Your task to perform on an android device: When is my next meeting? Image 0: 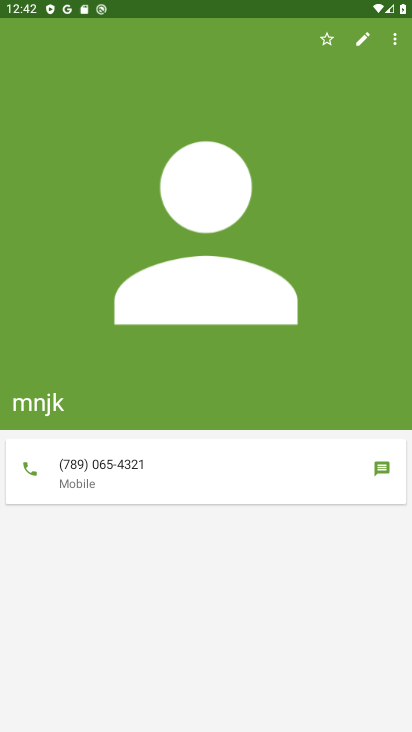
Step 0: press home button
Your task to perform on an android device: When is my next meeting? Image 1: 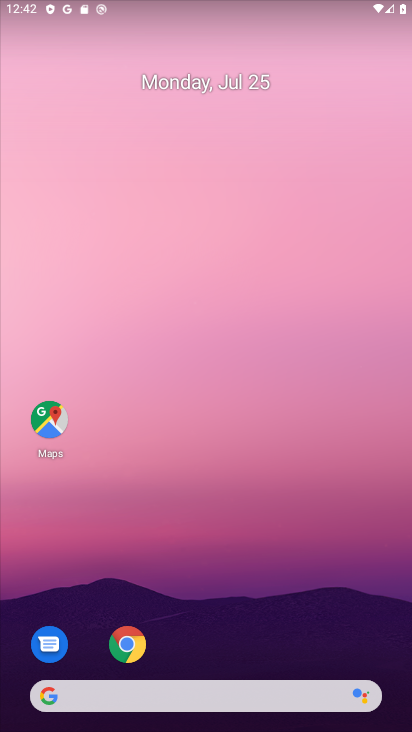
Step 1: drag from (242, 626) to (202, 43)
Your task to perform on an android device: When is my next meeting? Image 2: 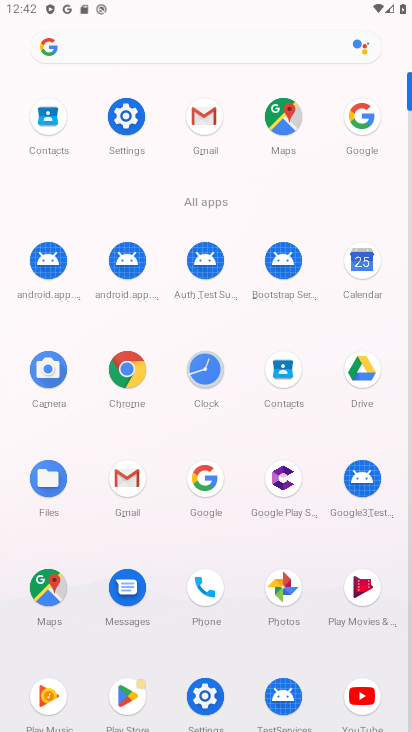
Step 2: click (358, 270)
Your task to perform on an android device: When is my next meeting? Image 3: 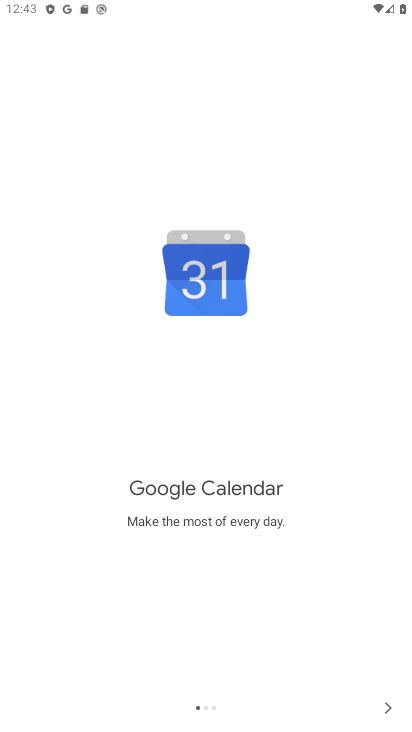
Step 3: click (389, 709)
Your task to perform on an android device: When is my next meeting? Image 4: 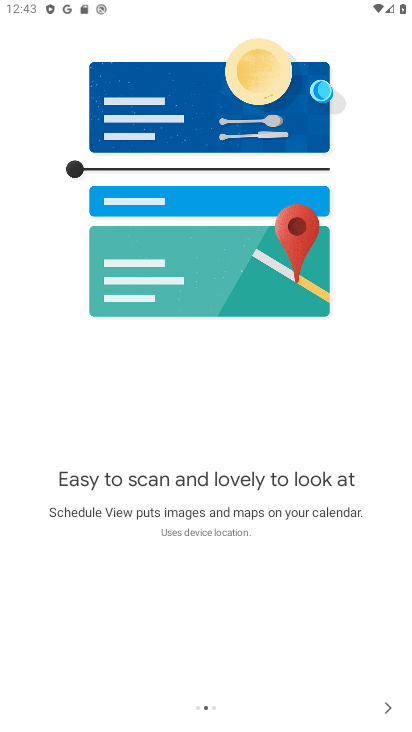
Step 4: click (389, 709)
Your task to perform on an android device: When is my next meeting? Image 5: 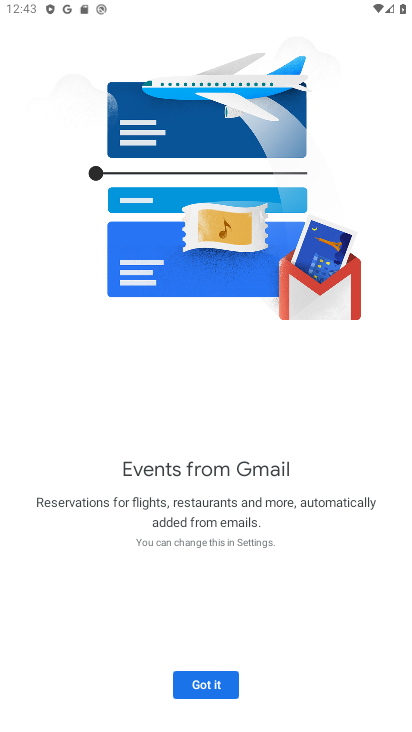
Step 5: click (217, 685)
Your task to perform on an android device: When is my next meeting? Image 6: 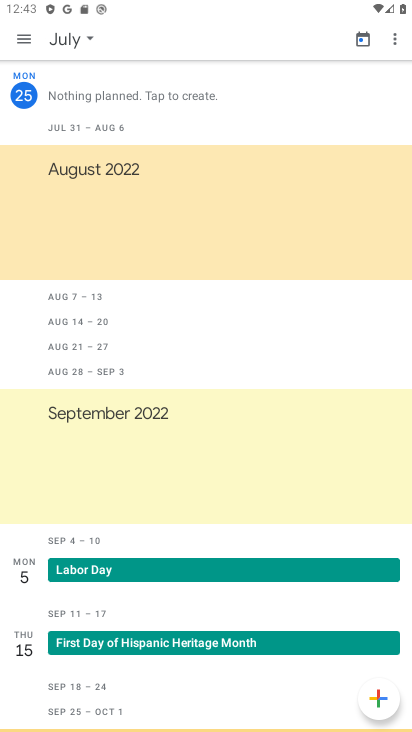
Step 6: click (62, 36)
Your task to perform on an android device: When is my next meeting? Image 7: 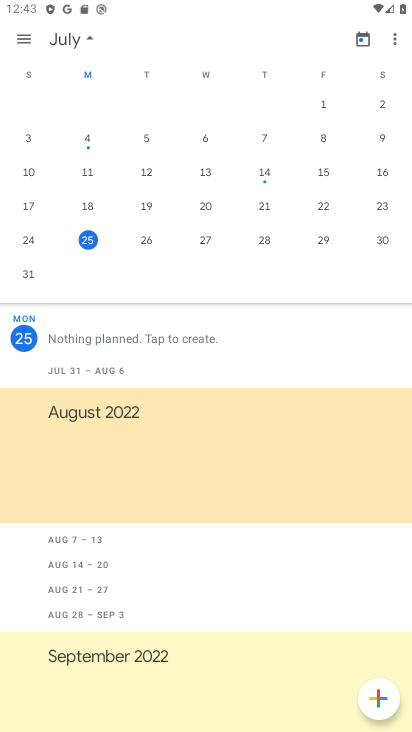
Step 7: click (91, 242)
Your task to perform on an android device: When is my next meeting? Image 8: 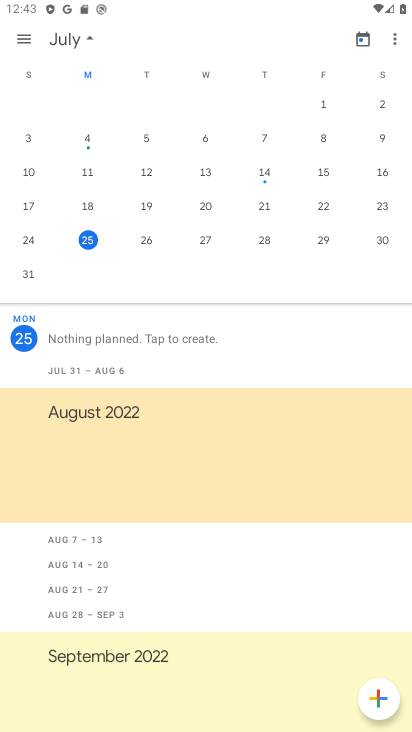
Step 8: task complete